Your task to perform on an android device: Open Reddit.com Image 0: 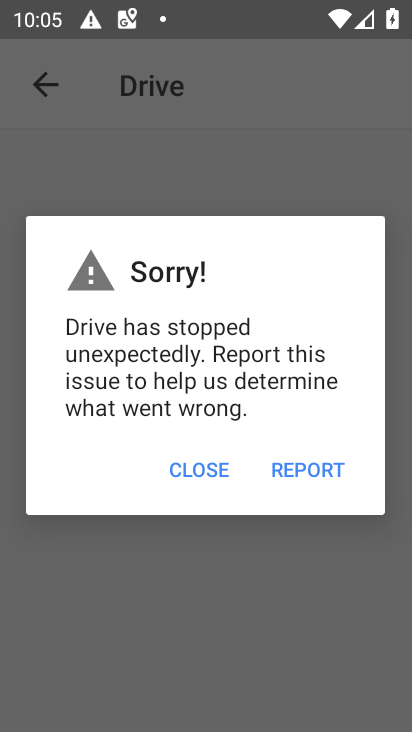
Step 0: press home button
Your task to perform on an android device: Open Reddit.com Image 1: 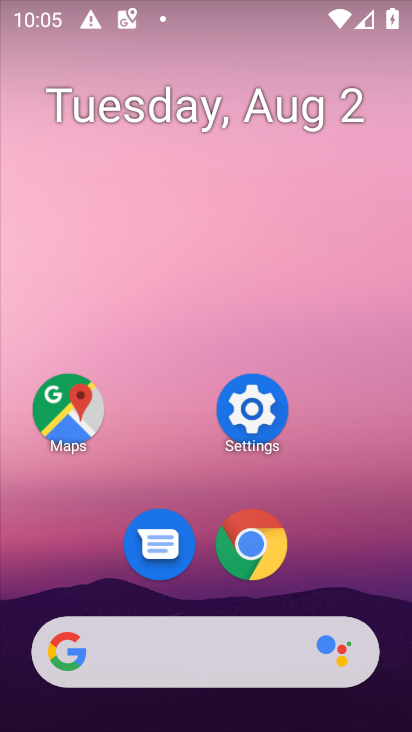
Step 1: click (238, 545)
Your task to perform on an android device: Open Reddit.com Image 2: 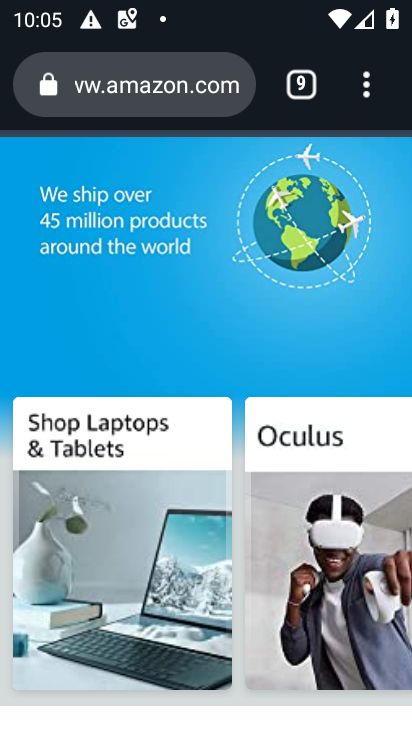
Step 2: drag from (360, 77) to (106, 169)
Your task to perform on an android device: Open Reddit.com Image 3: 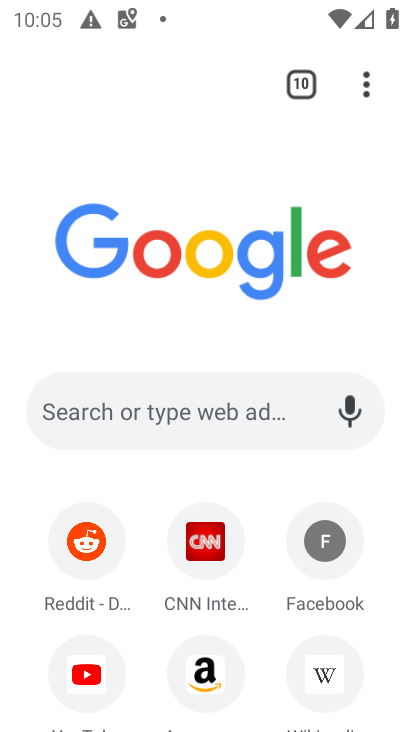
Step 3: click (77, 540)
Your task to perform on an android device: Open Reddit.com Image 4: 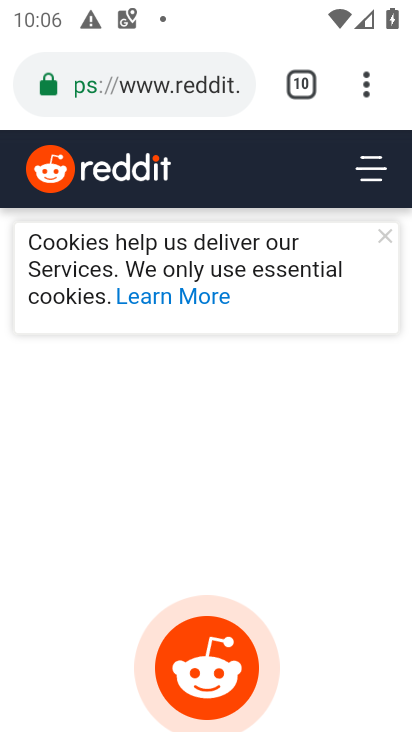
Step 4: task complete